Your task to perform on an android device: star an email in the gmail app Image 0: 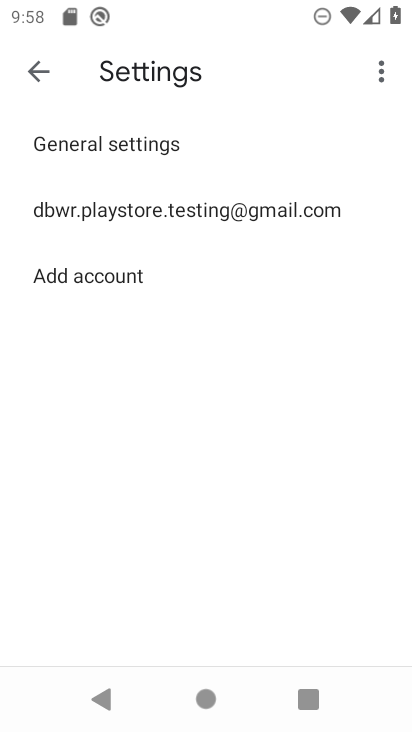
Step 0: press home button
Your task to perform on an android device: star an email in the gmail app Image 1: 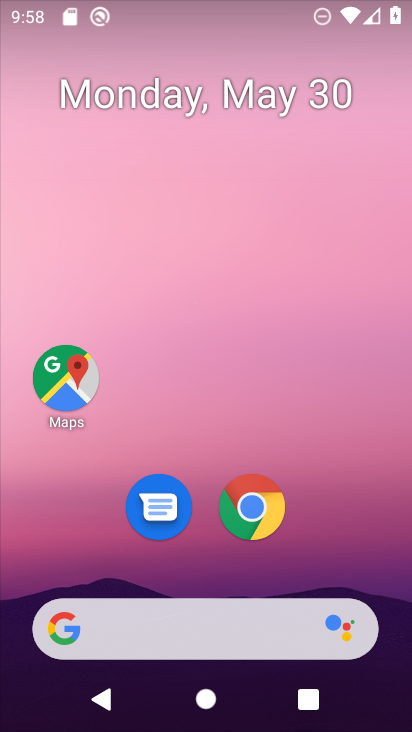
Step 1: drag from (154, 731) to (202, 213)
Your task to perform on an android device: star an email in the gmail app Image 2: 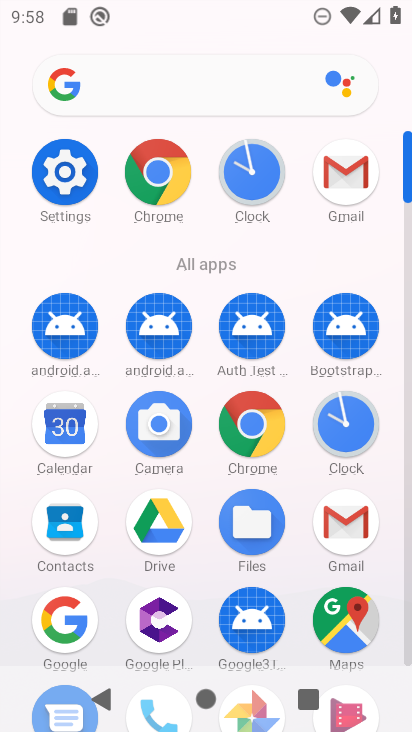
Step 2: click (356, 169)
Your task to perform on an android device: star an email in the gmail app Image 3: 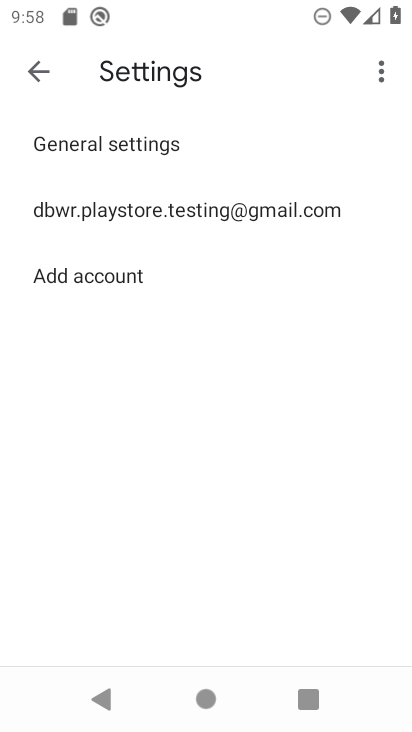
Step 3: click (36, 80)
Your task to perform on an android device: star an email in the gmail app Image 4: 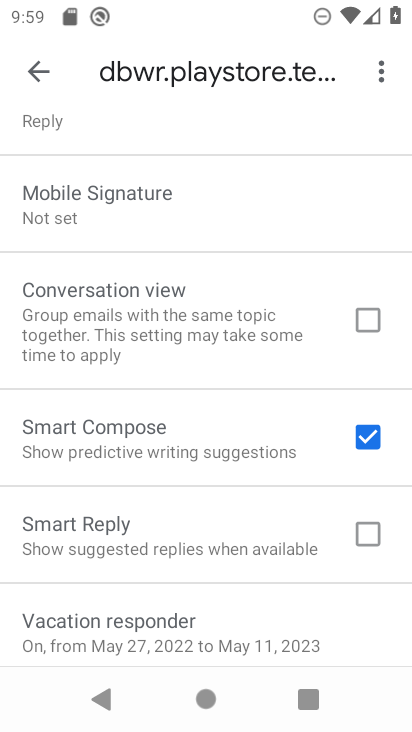
Step 4: click (42, 73)
Your task to perform on an android device: star an email in the gmail app Image 5: 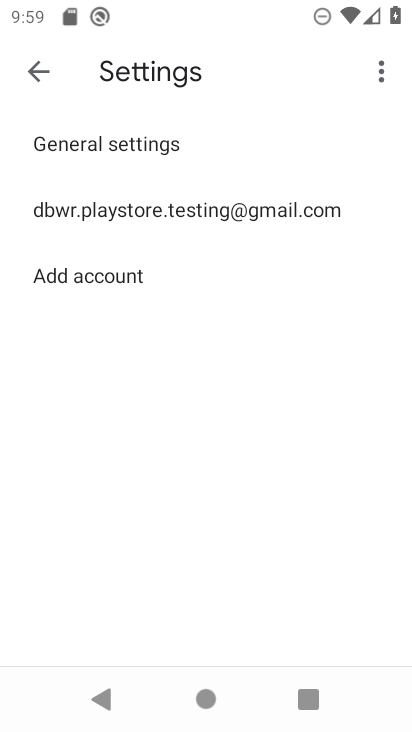
Step 5: click (40, 67)
Your task to perform on an android device: star an email in the gmail app Image 6: 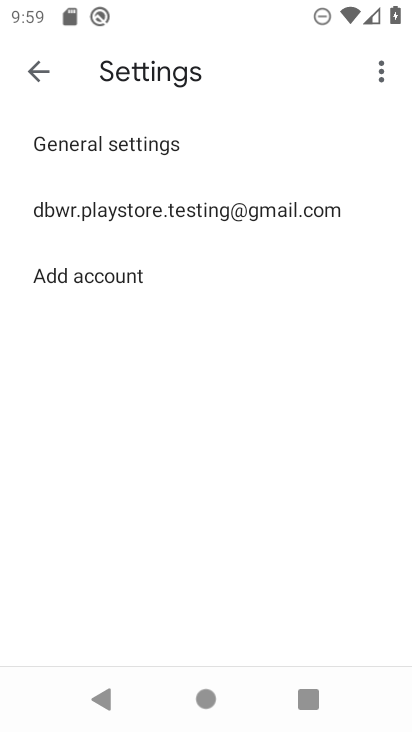
Step 6: click (36, 79)
Your task to perform on an android device: star an email in the gmail app Image 7: 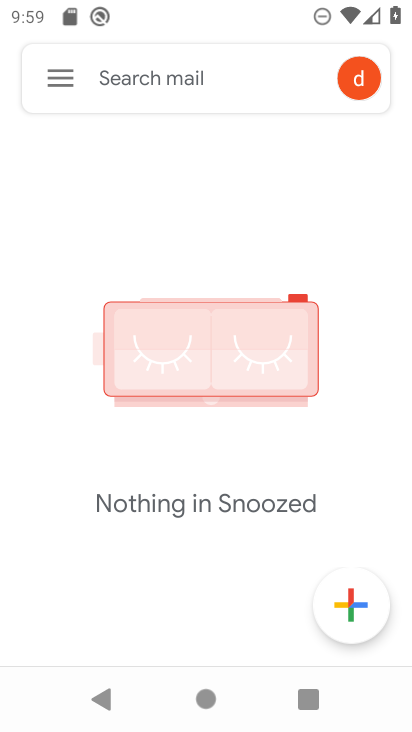
Step 7: click (50, 83)
Your task to perform on an android device: star an email in the gmail app Image 8: 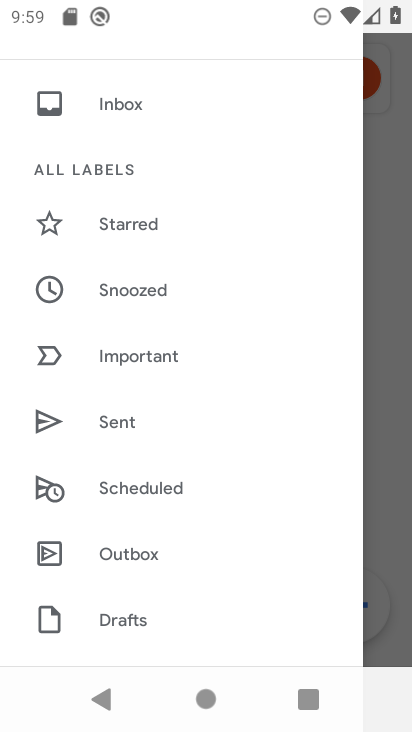
Step 8: click (105, 120)
Your task to perform on an android device: star an email in the gmail app Image 9: 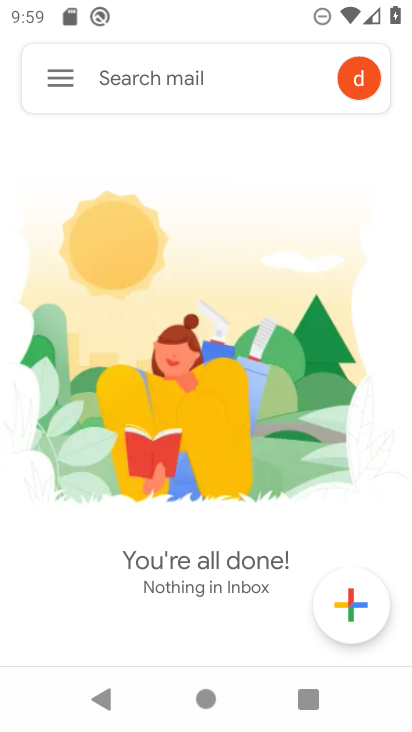
Step 9: click (68, 88)
Your task to perform on an android device: star an email in the gmail app Image 10: 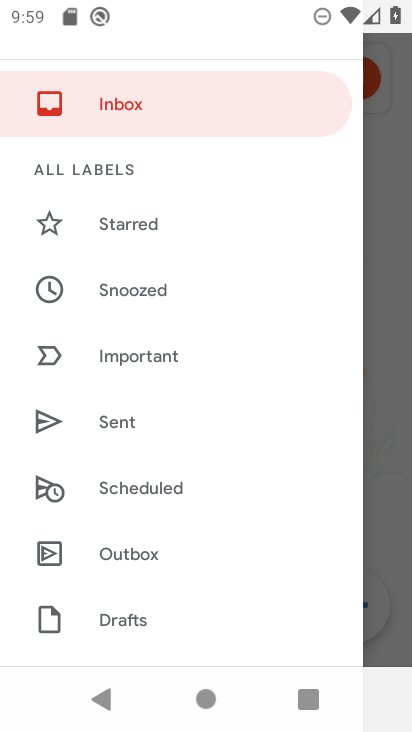
Step 10: drag from (203, 574) to (196, 293)
Your task to perform on an android device: star an email in the gmail app Image 11: 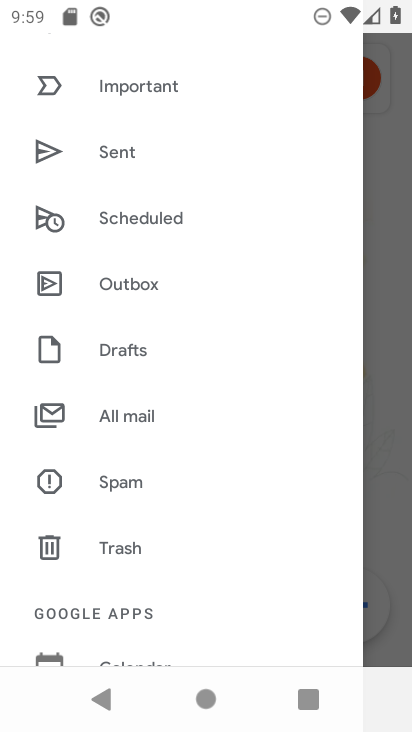
Step 11: click (124, 423)
Your task to perform on an android device: star an email in the gmail app Image 12: 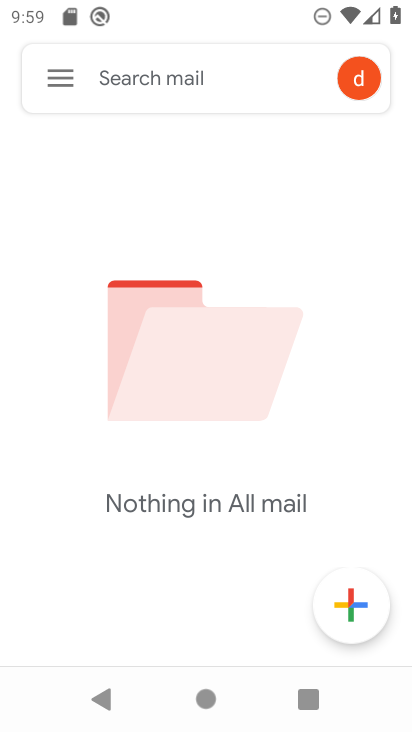
Step 12: task complete